Your task to perform on an android device: uninstall "Reddit" Image 0: 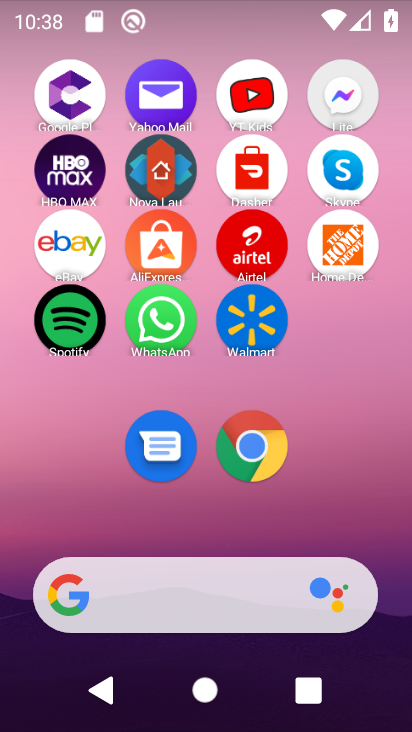
Step 0: drag from (250, 528) to (278, 85)
Your task to perform on an android device: uninstall "Reddit" Image 1: 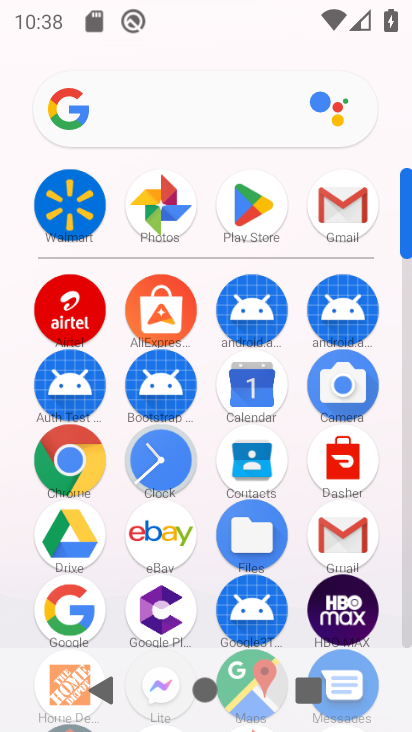
Step 1: click (266, 184)
Your task to perform on an android device: uninstall "Reddit" Image 2: 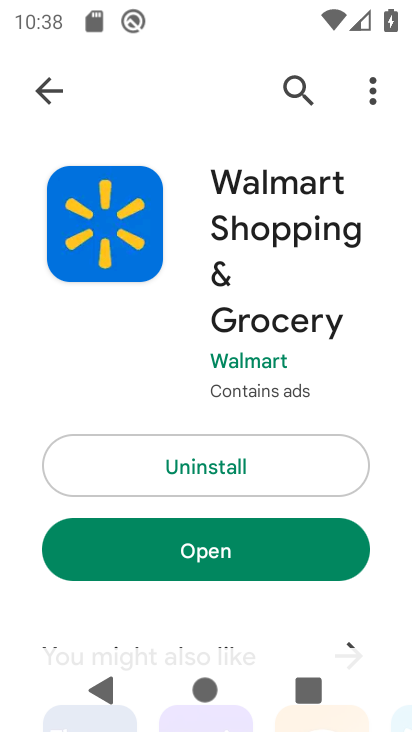
Step 2: click (295, 82)
Your task to perform on an android device: uninstall "Reddit" Image 3: 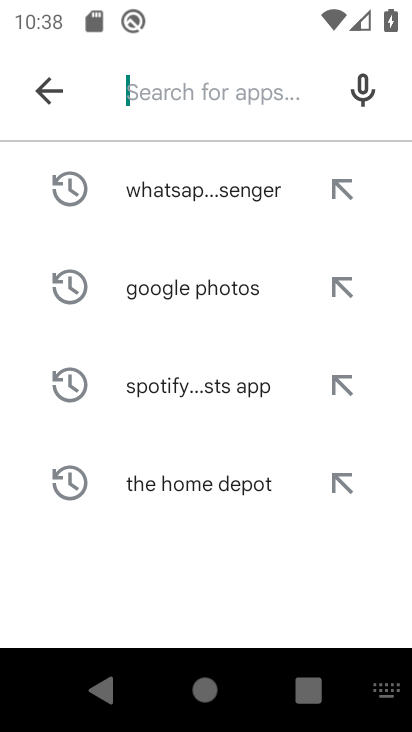
Step 3: type "Reddit"
Your task to perform on an android device: uninstall "Reddit" Image 4: 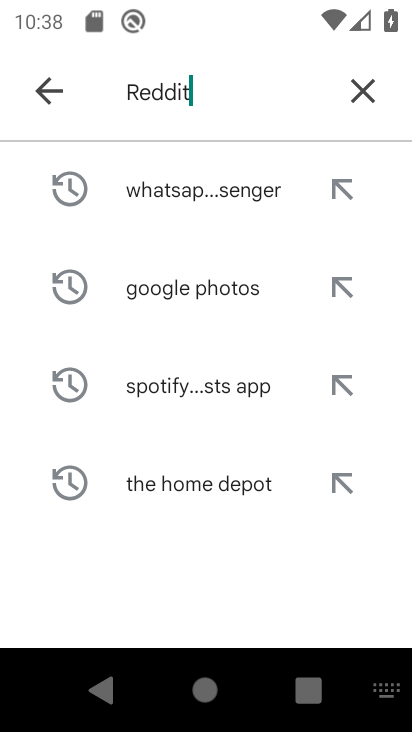
Step 4: type ""
Your task to perform on an android device: uninstall "Reddit" Image 5: 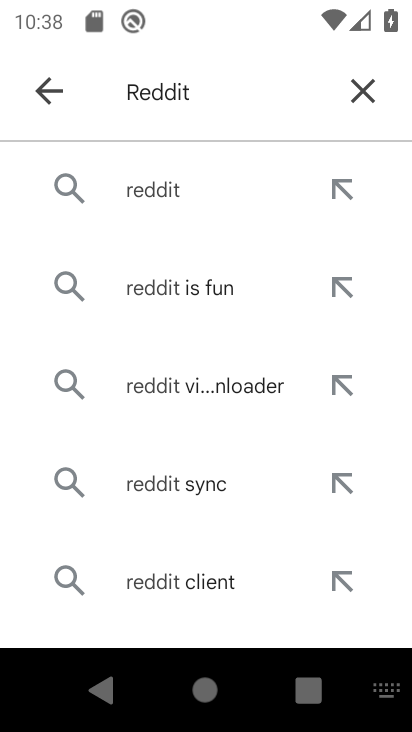
Step 5: click (221, 184)
Your task to perform on an android device: uninstall "Reddit" Image 6: 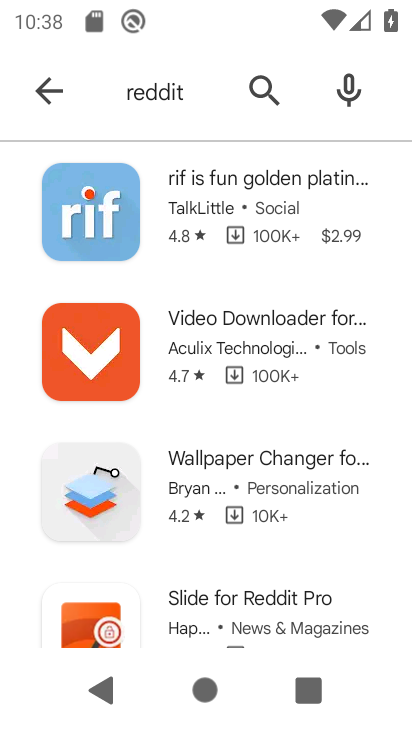
Step 6: task complete